Your task to perform on an android device: open a new tab in the chrome app Image 0: 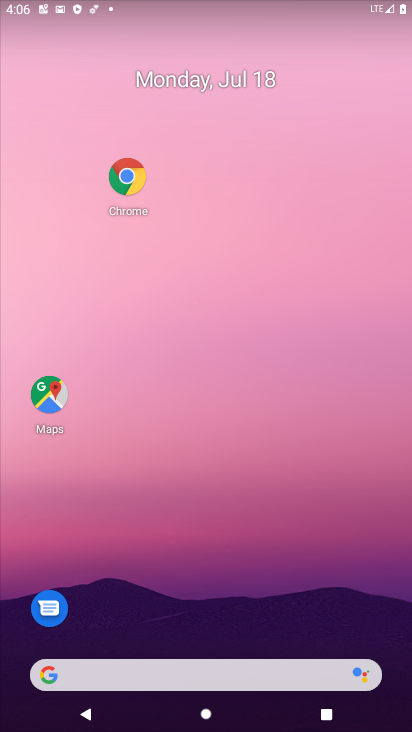
Step 0: drag from (182, 633) to (253, 231)
Your task to perform on an android device: open a new tab in the chrome app Image 1: 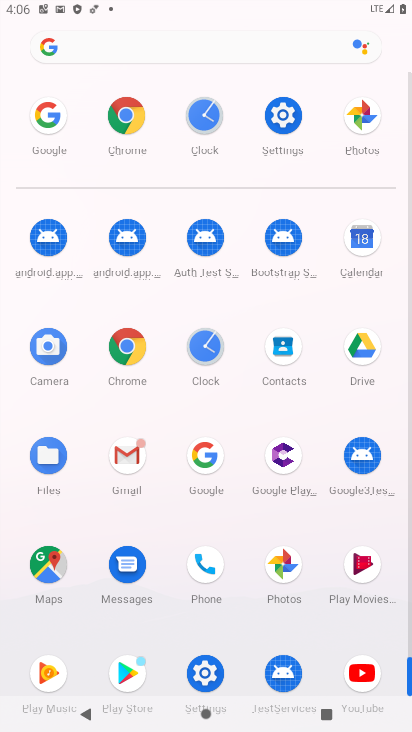
Step 1: click (130, 369)
Your task to perform on an android device: open a new tab in the chrome app Image 2: 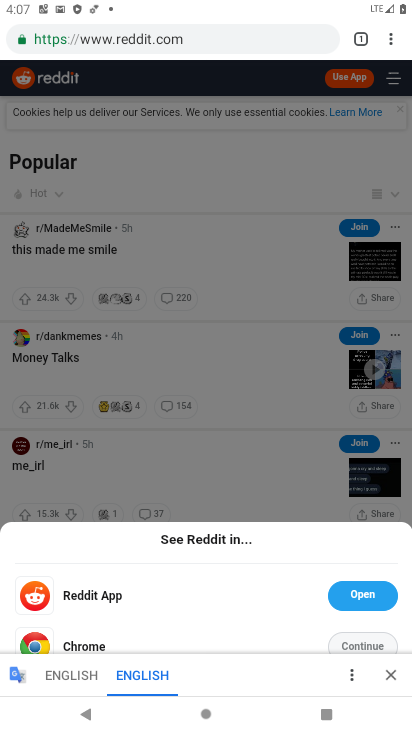
Step 2: drag from (355, 45) to (336, 183)
Your task to perform on an android device: open a new tab in the chrome app Image 3: 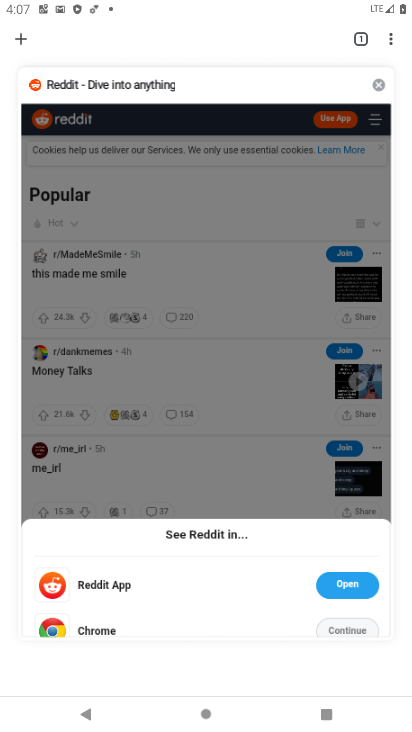
Step 3: click (19, 49)
Your task to perform on an android device: open a new tab in the chrome app Image 4: 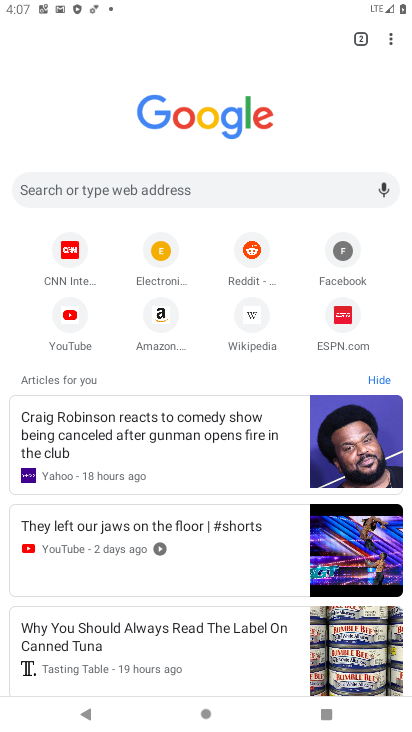
Step 4: task complete